Your task to perform on an android device: open chrome and create a bookmark for the current page Image 0: 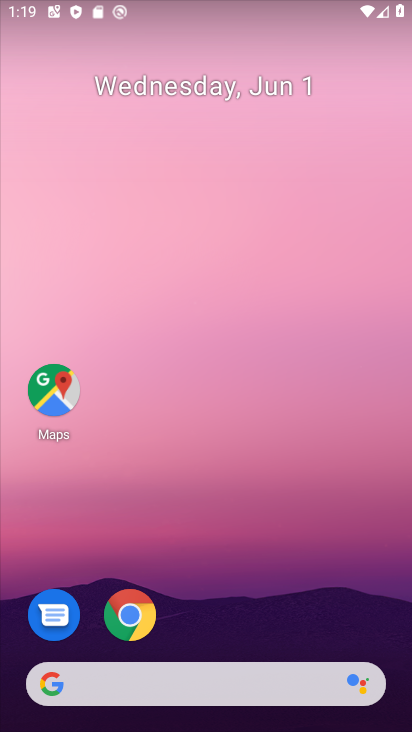
Step 0: task complete